Your task to perform on an android device: open a bookmark in the chrome app Image 0: 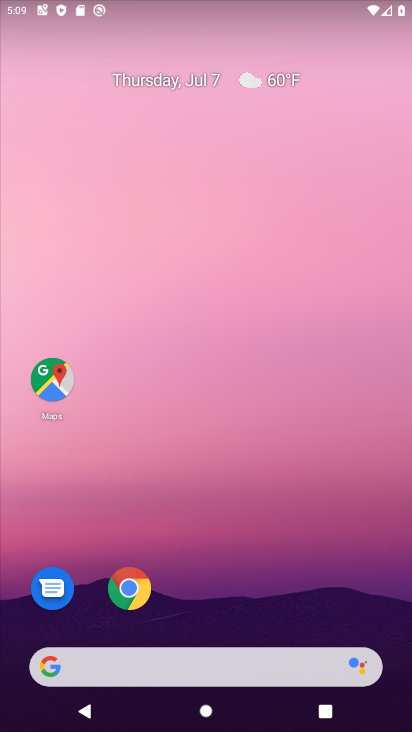
Step 0: click (129, 567)
Your task to perform on an android device: open a bookmark in the chrome app Image 1: 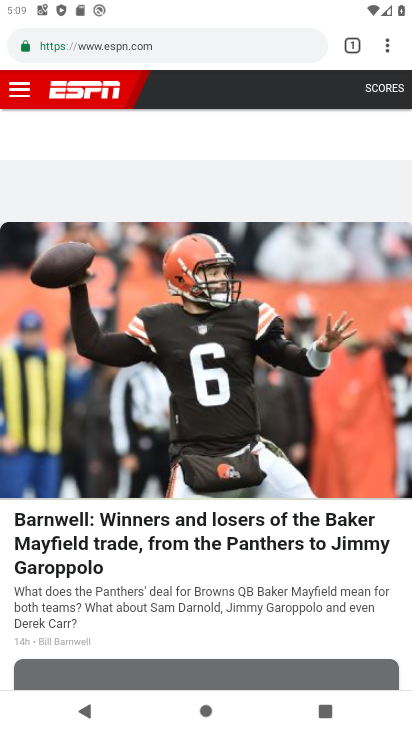
Step 1: drag from (385, 42) to (231, 182)
Your task to perform on an android device: open a bookmark in the chrome app Image 2: 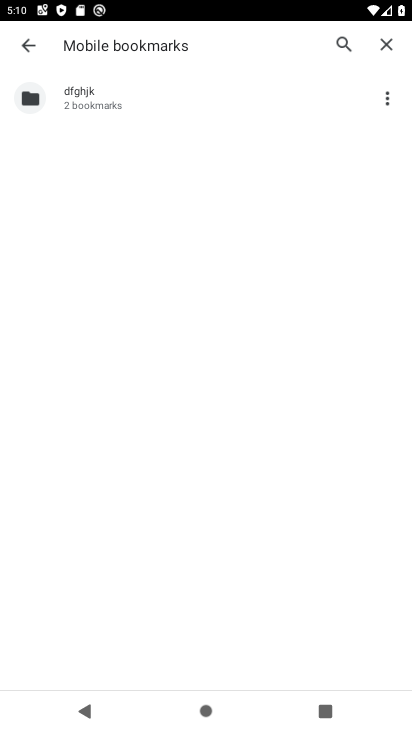
Step 2: click (113, 98)
Your task to perform on an android device: open a bookmark in the chrome app Image 3: 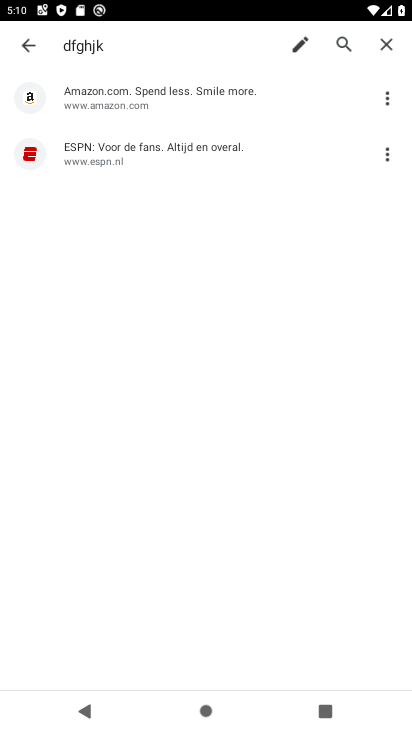
Step 3: click (125, 104)
Your task to perform on an android device: open a bookmark in the chrome app Image 4: 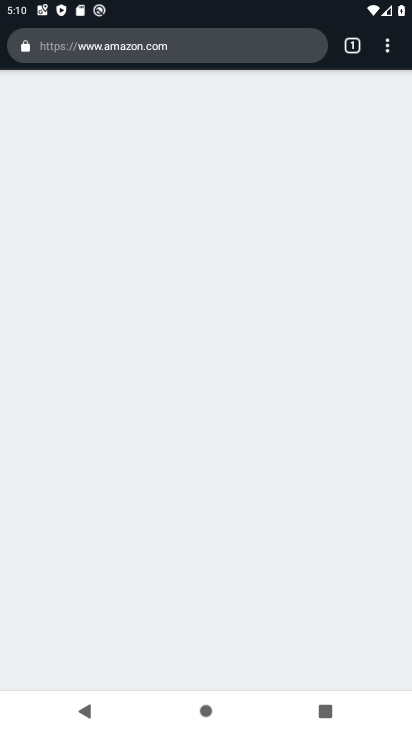
Step 4: task complete